Your task to perform on an android device: Add alienware area 51 to the cart on costco.com Image 0: 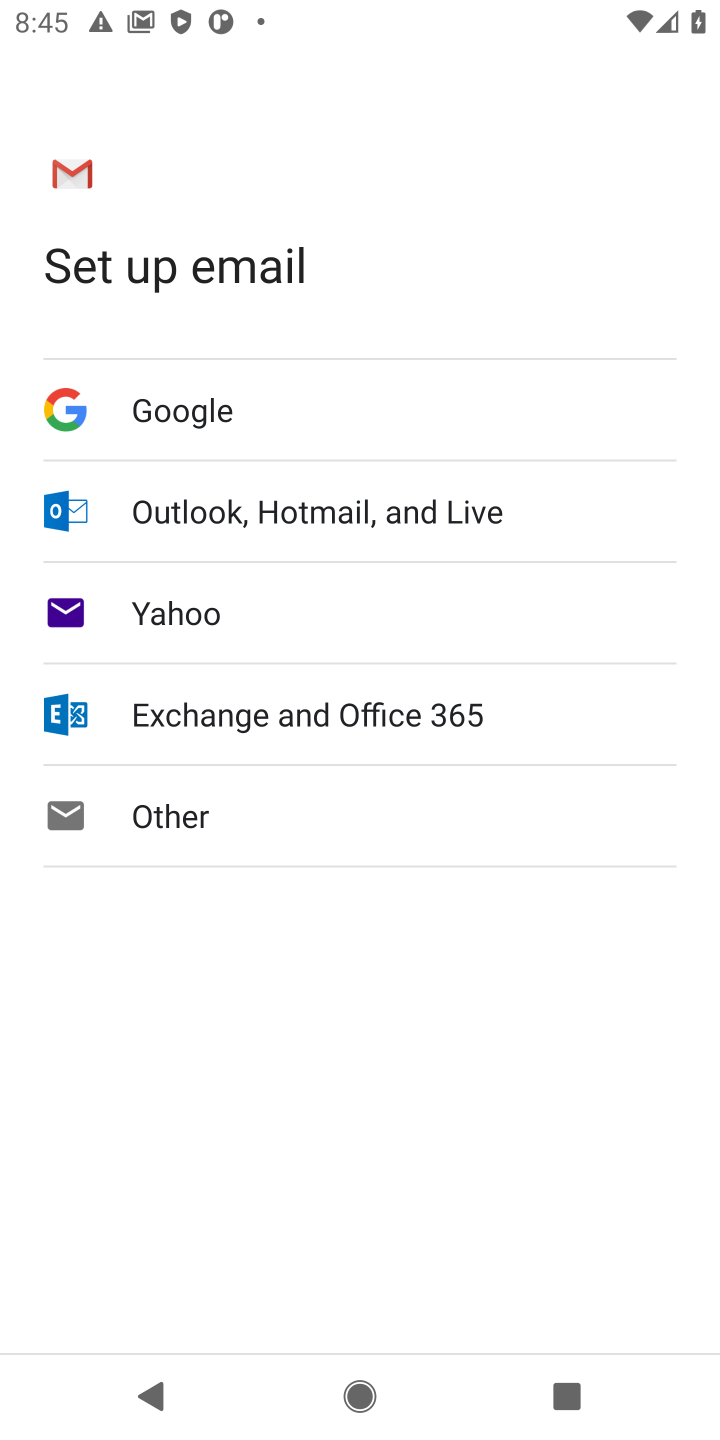
Step 0: press home button
Your task to perform on an android device: Add alienware area 51 to the cart on costco.com Image 1: 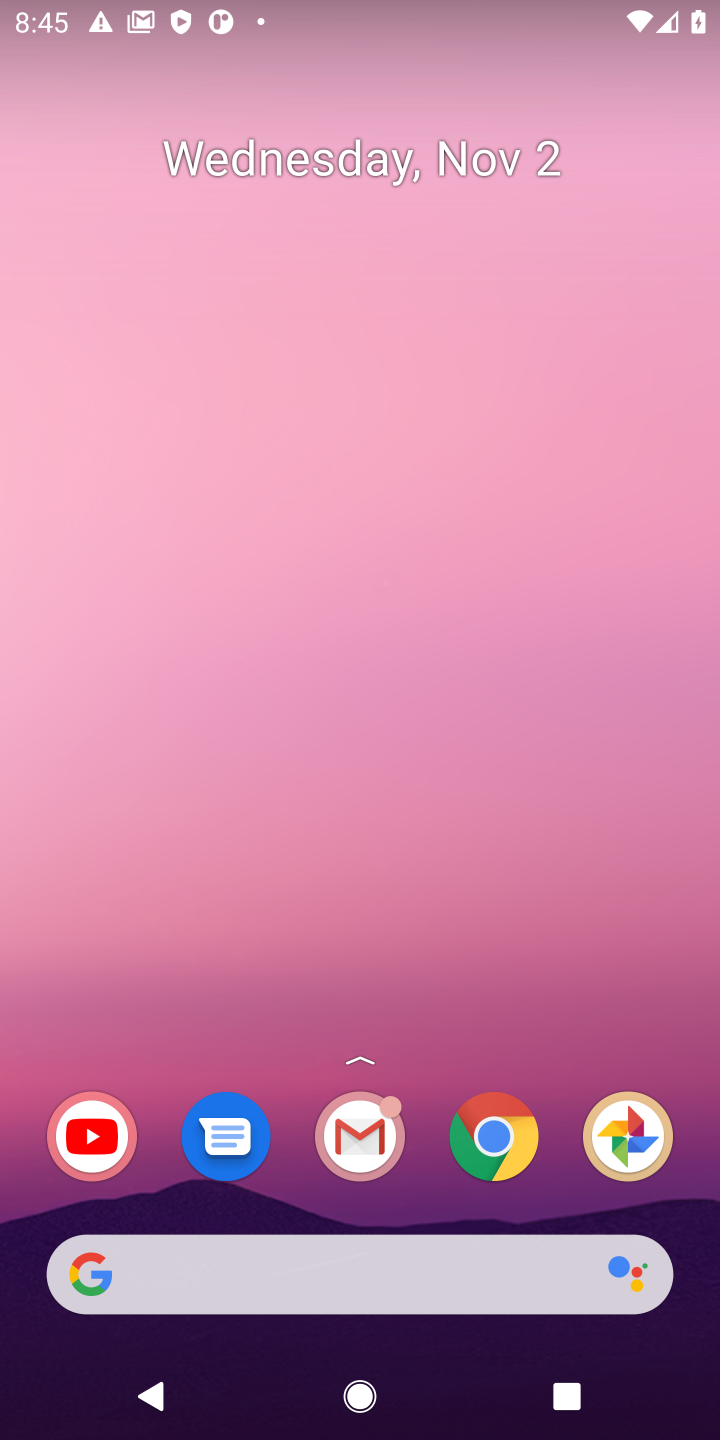
Step 1: drag from (436, 1186) to (443, 536)
Your task to perform on an android device: Add alienware area 51 to the cart on costco.com Image 2: 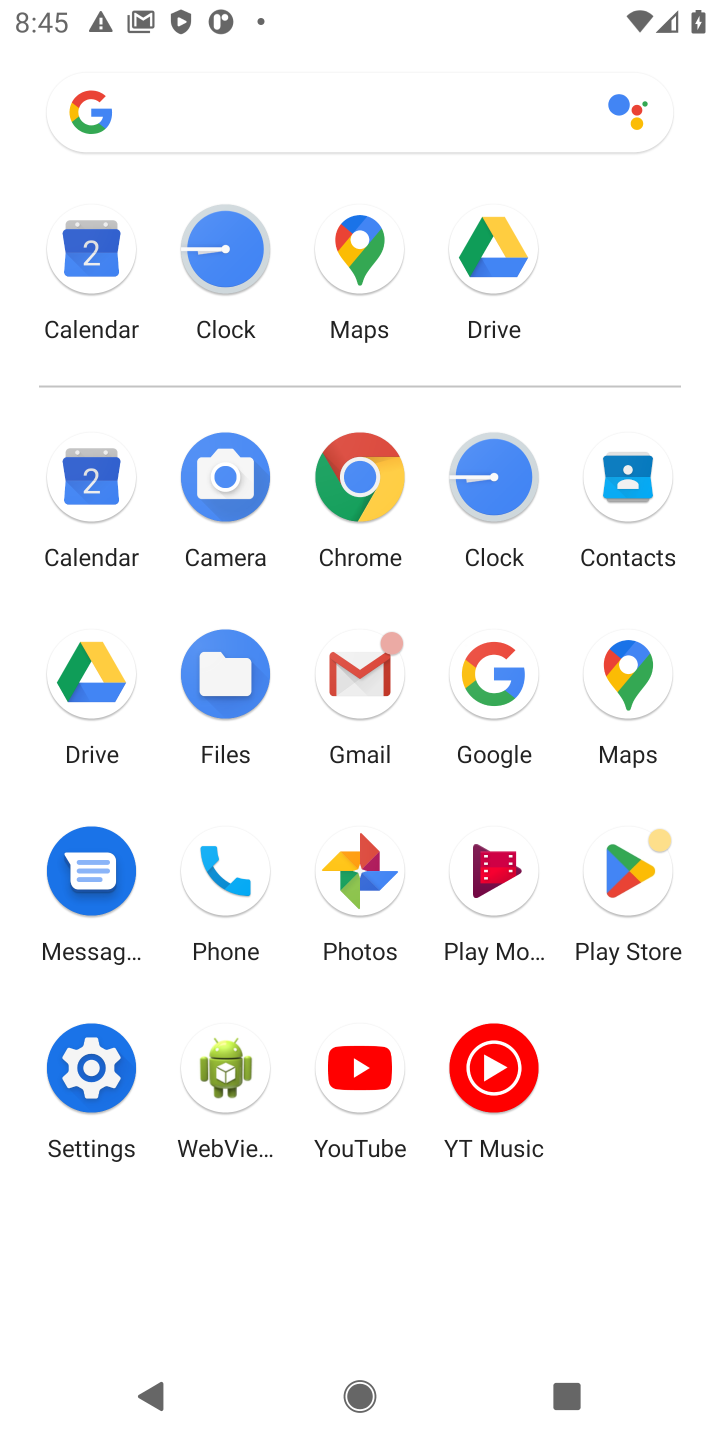
Step 2: click (496, 680)
Your task to perform on an android device: Add alienware area 51 to the cart on costco.com Image 3: 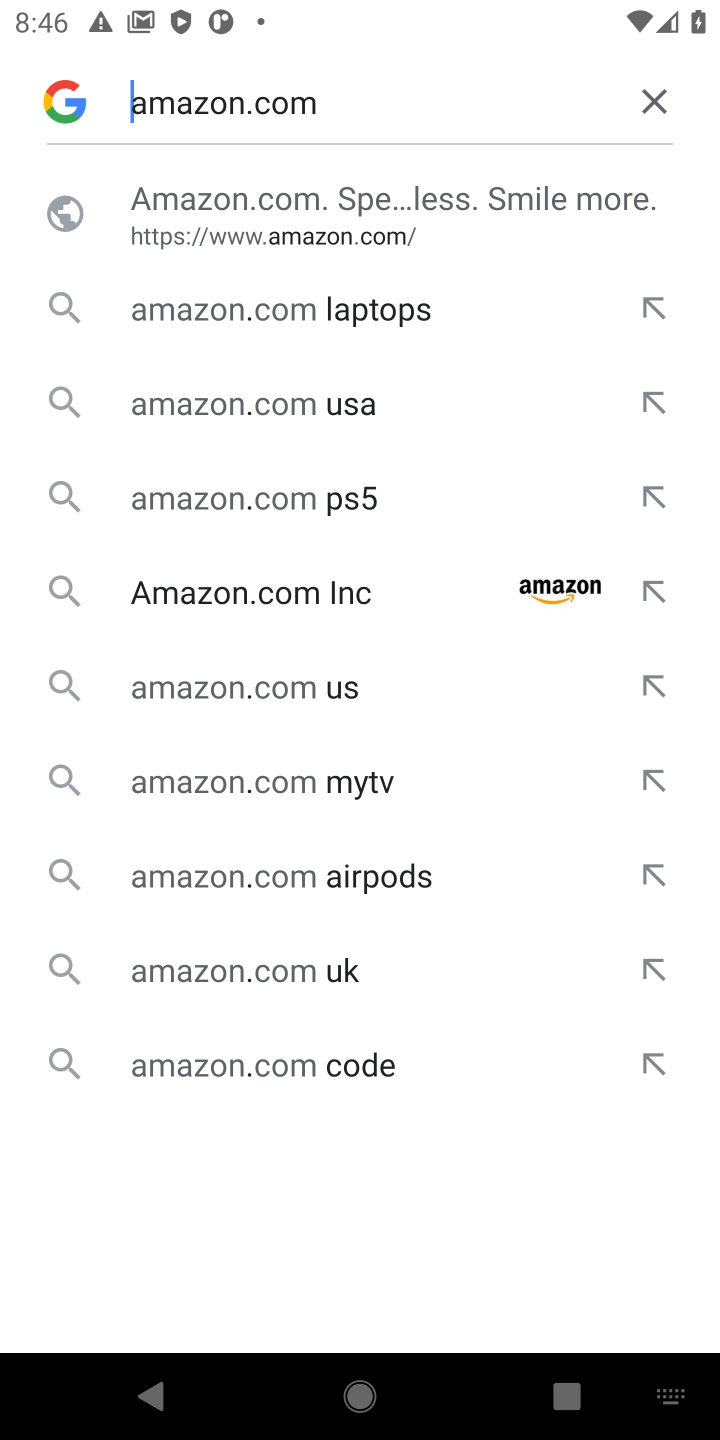
Step 3: click (653, 106)
Your task to perform on an android device: Add alienware area 51 to the cart on costco.com Image 4: 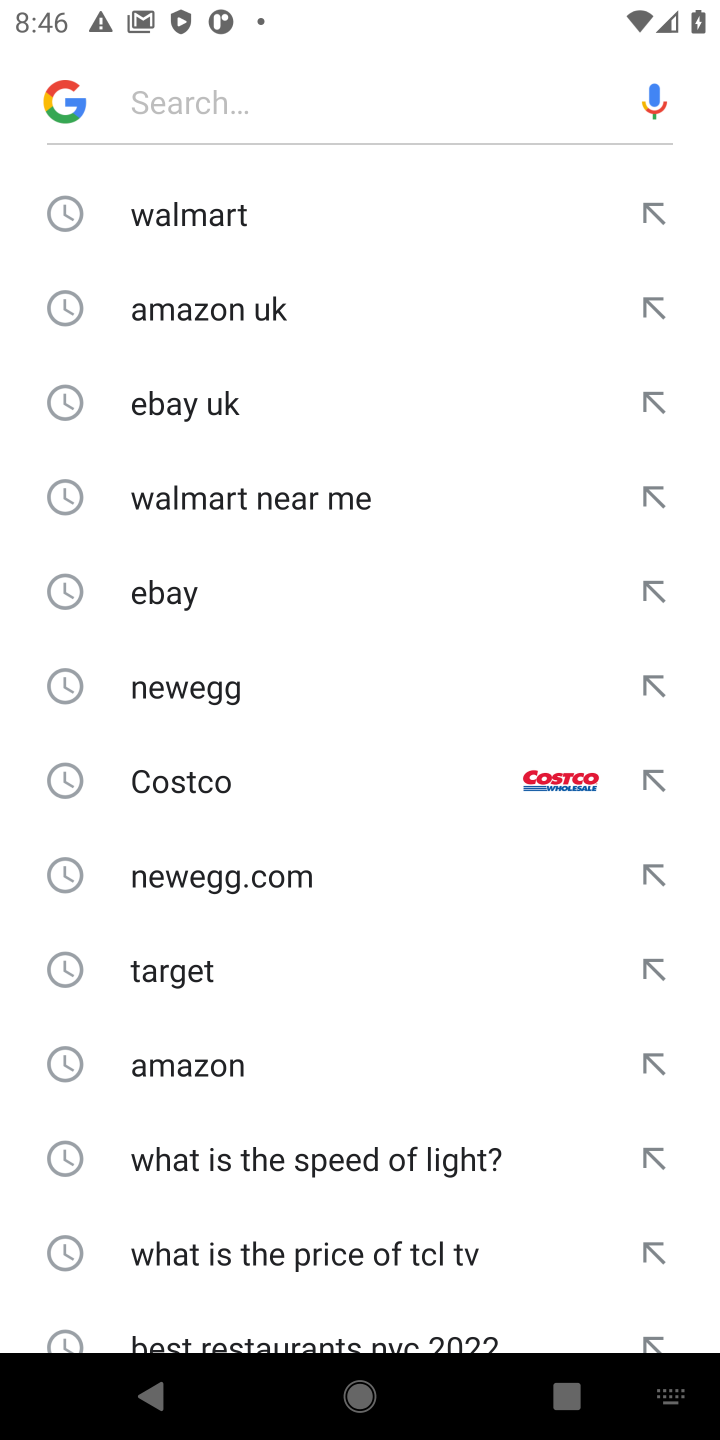
Step 4: click (259, 88)
Your task to perform on an android device: Add alienware area 51 to the cart on costco.com Image 5: 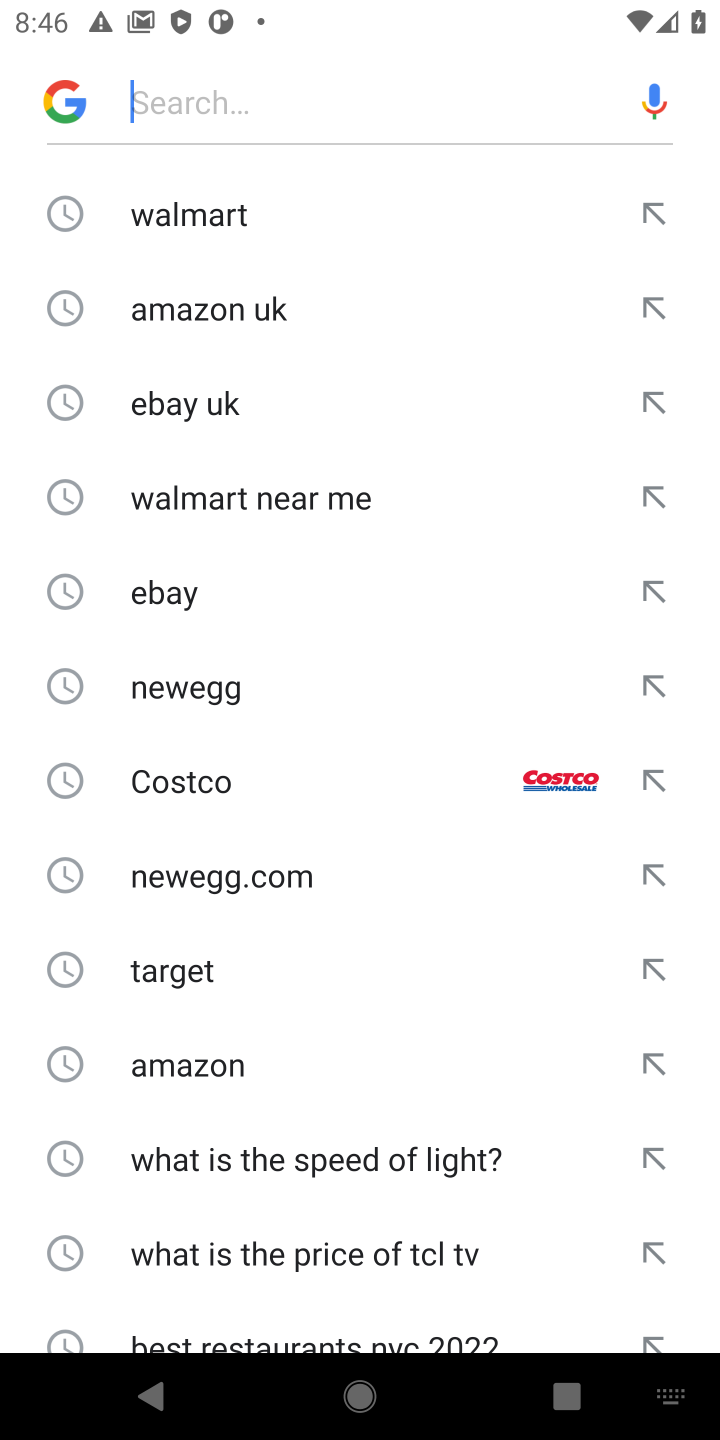
Step 5: type " costco.com "
Your task to perform on an android device: Add alienware area 51 to the cart on costco.com Image 6: 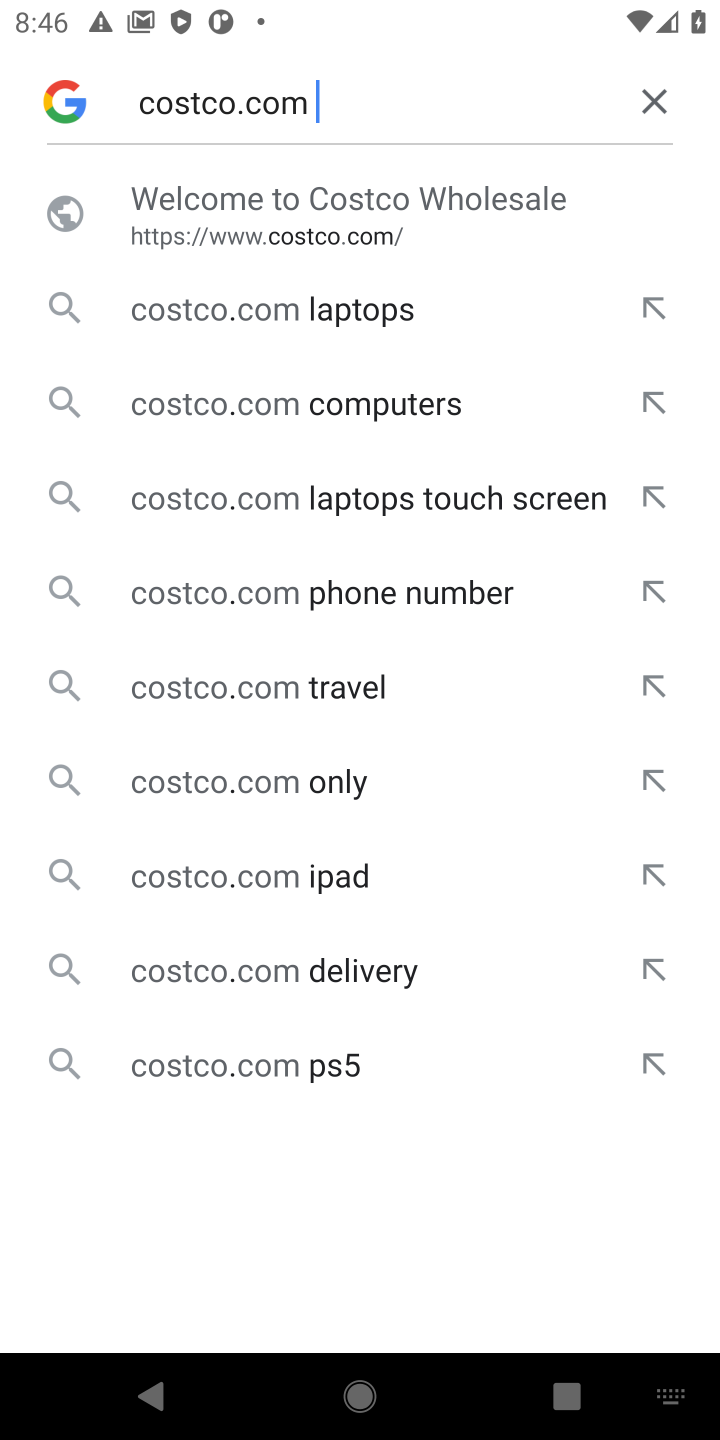
Step 6: click (394, 193)
Your task to perform on an android device: Add alienware area 51 to the cart on costco.com Image 7: 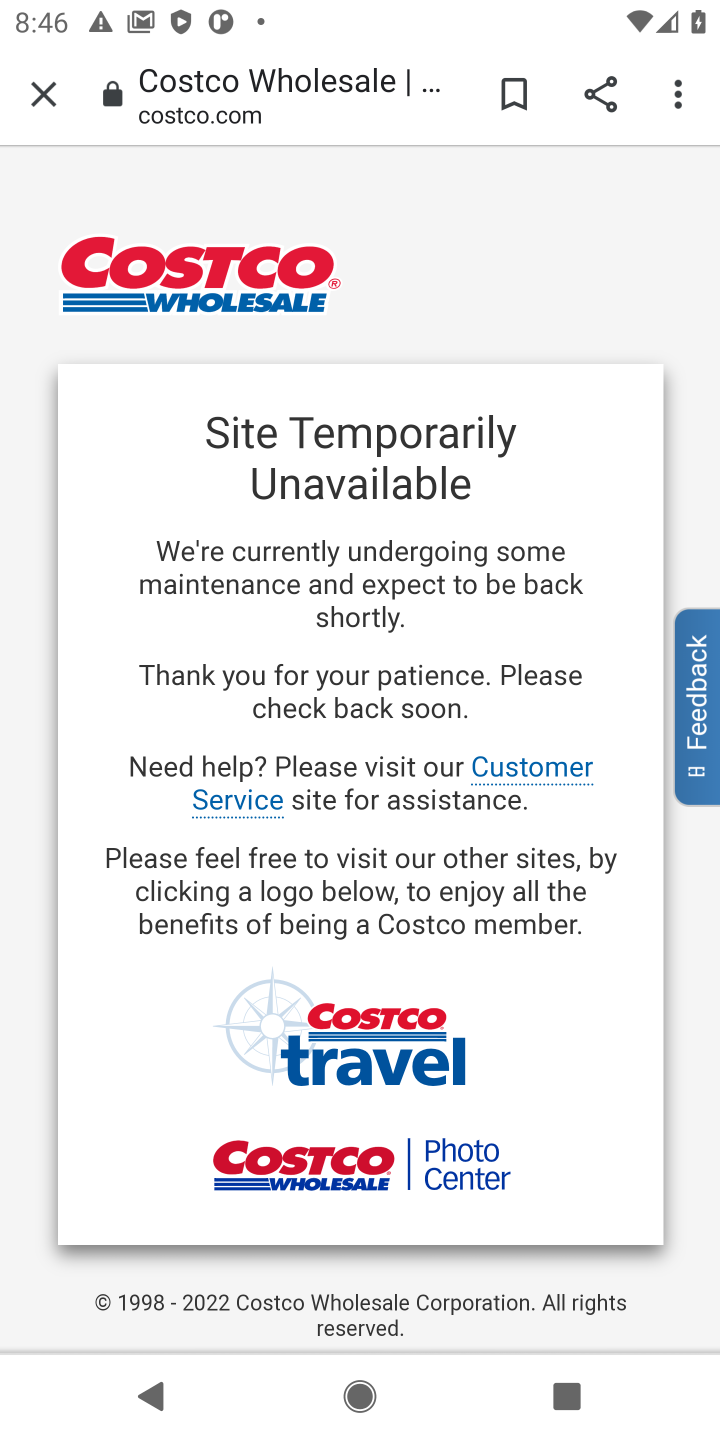
Step 7: drag from (492, 1035) to (474, 214)
Your task to perform on an android device: Add alienware area 51 to the cart on costco.com Image 8: 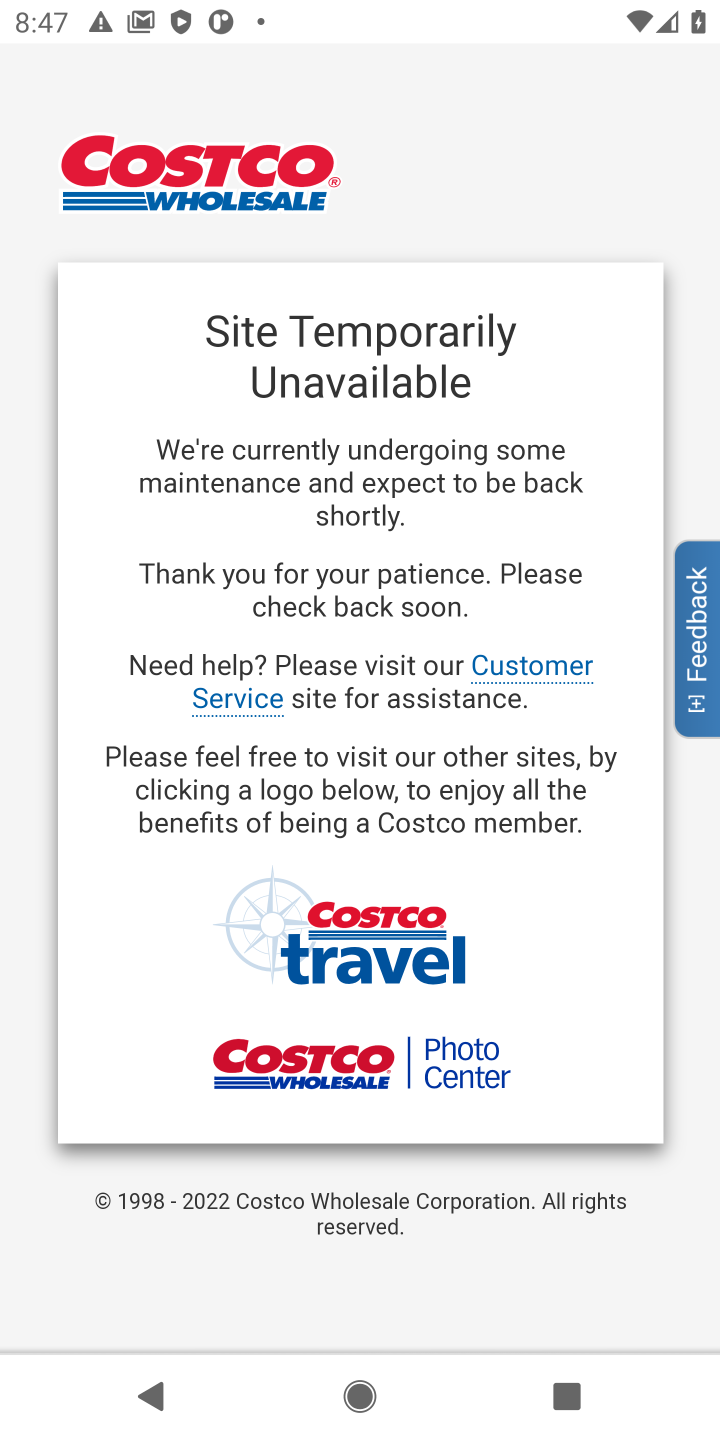
Step 8: press back button
Your task to perform on an android device: Add alienware area 51 to the cart on costco.com Image 9: 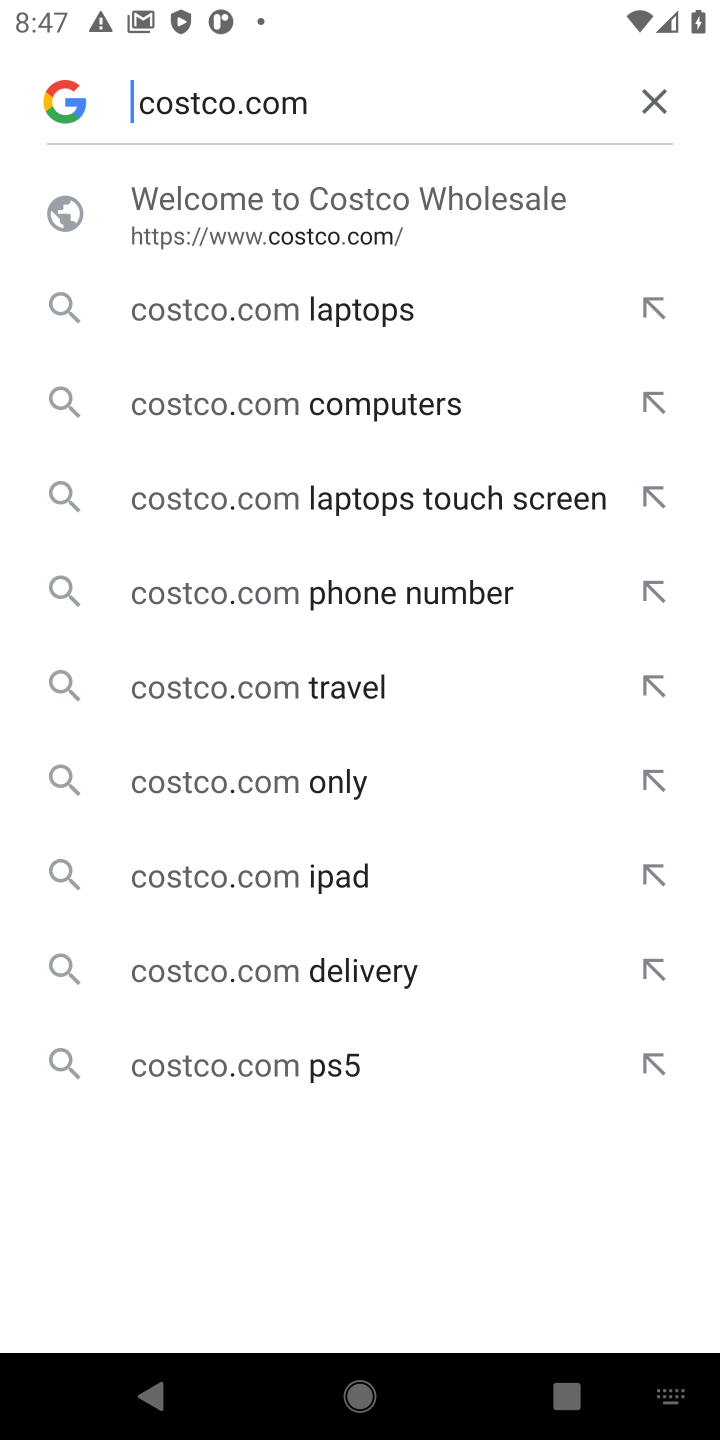
Step 9: click (265, 305)
Your task to perform on an android device: Add alienware area 51 to the cart on costco.com Image 10: 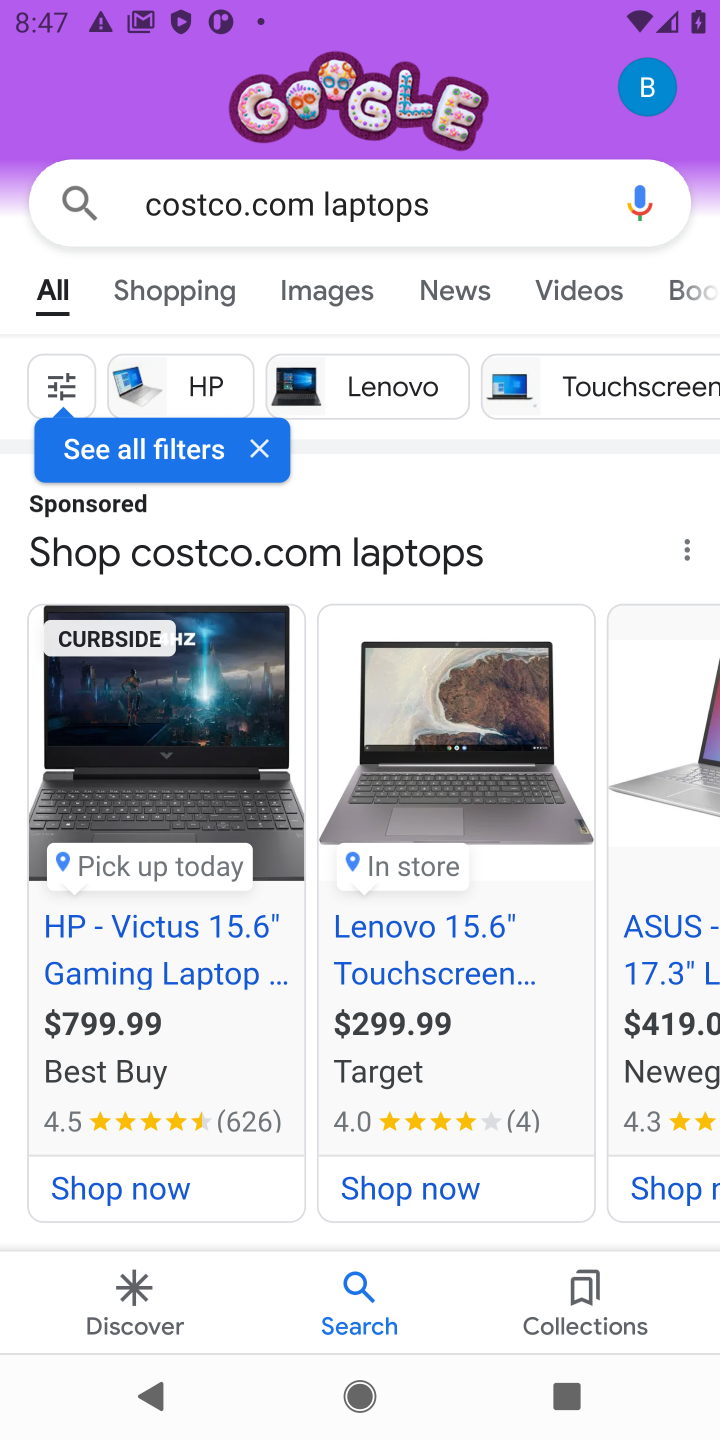
Step 10: drag from (308, 1118) to (365, 127)
Your task to perform on an android device: Add alienware area 51 to the cart on costco.com Image 11: 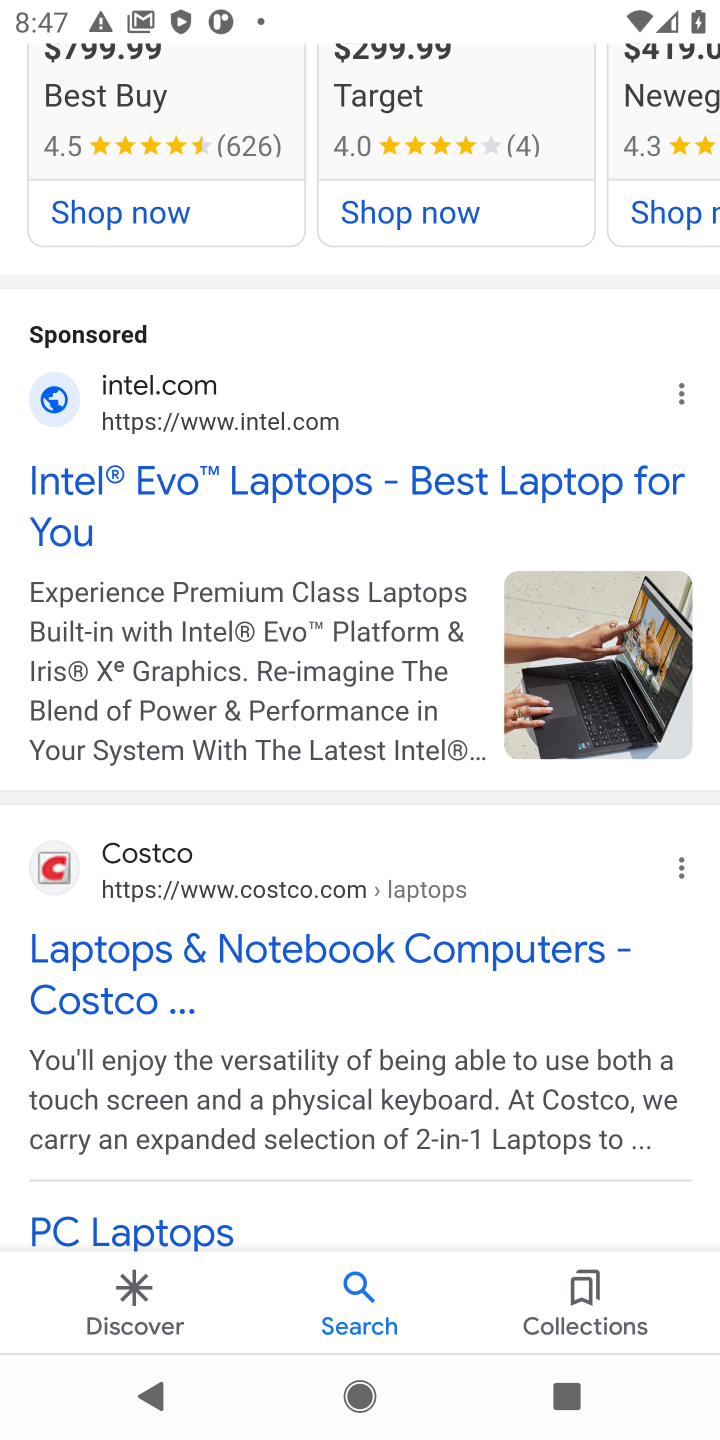
Step 11: click (51, 856)
Your task to perform on an android device: Add alienware area 51 to the cart on costco.com Image 12: 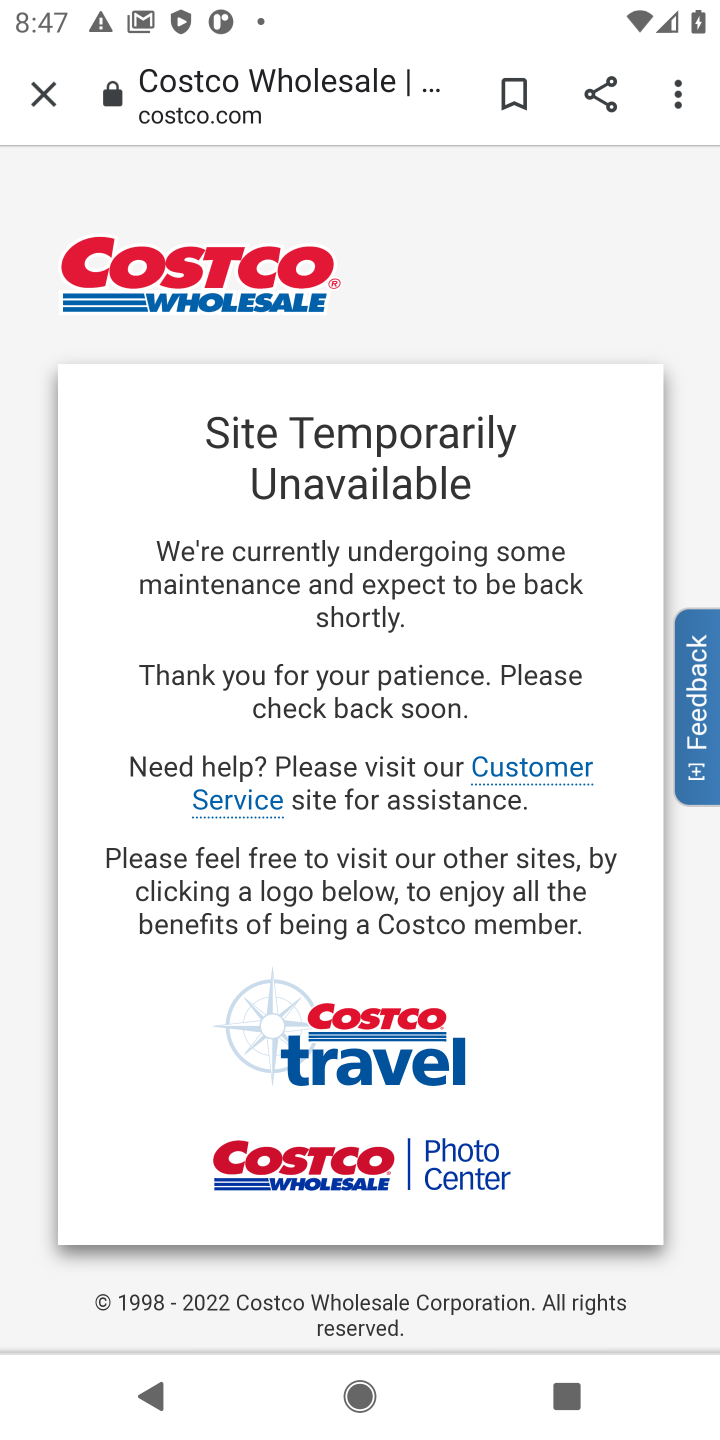
Step 12: drag from (380, 971) to (387, 298)
Your task to perform on an android device: Add alienware area 51 to the cart on costco.com Image 13: 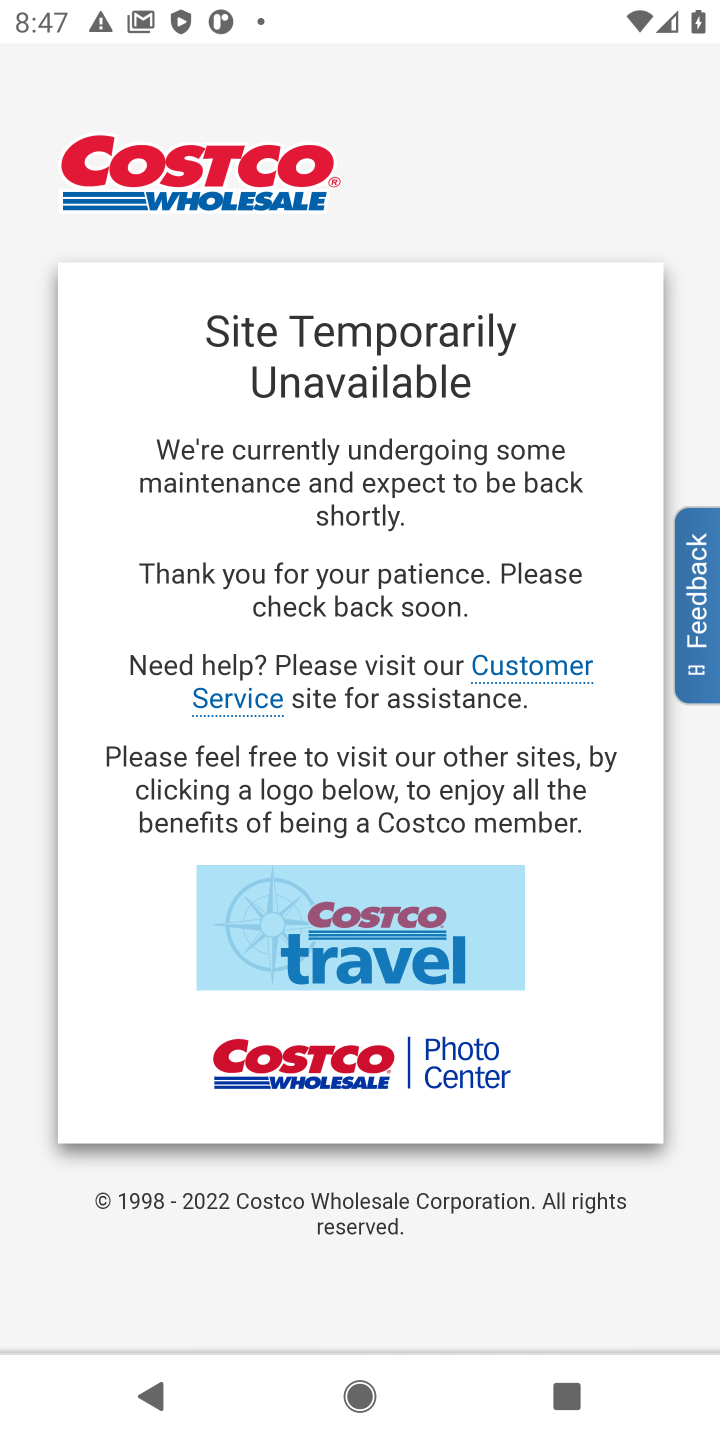
Step 13: drag from (437, 526) to (437, 153)
Your task to perform on an android device: Add alienware area 51 to the cart on costco.com Image 14: 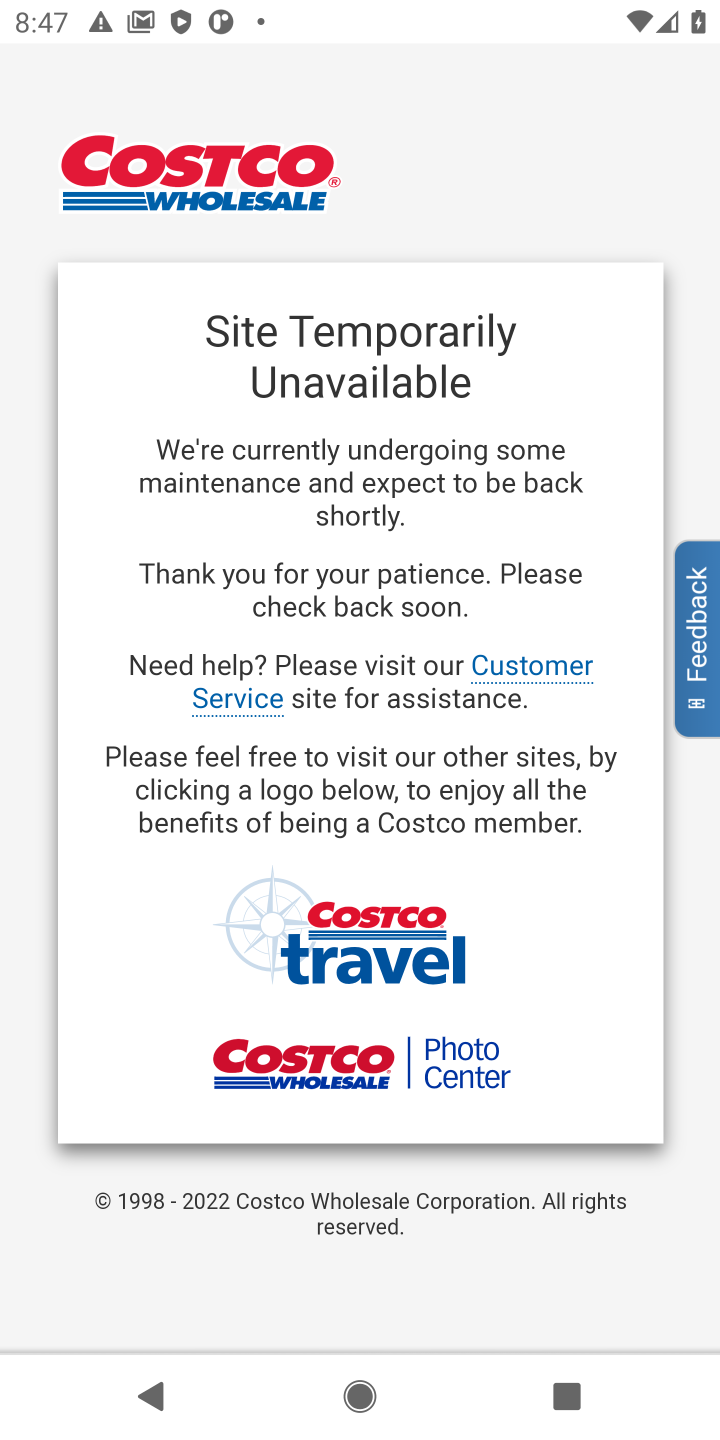
Step 14: press back button
Your task to perform on an android device: Add alienware area 51 to the cart on costco.com Image 15: 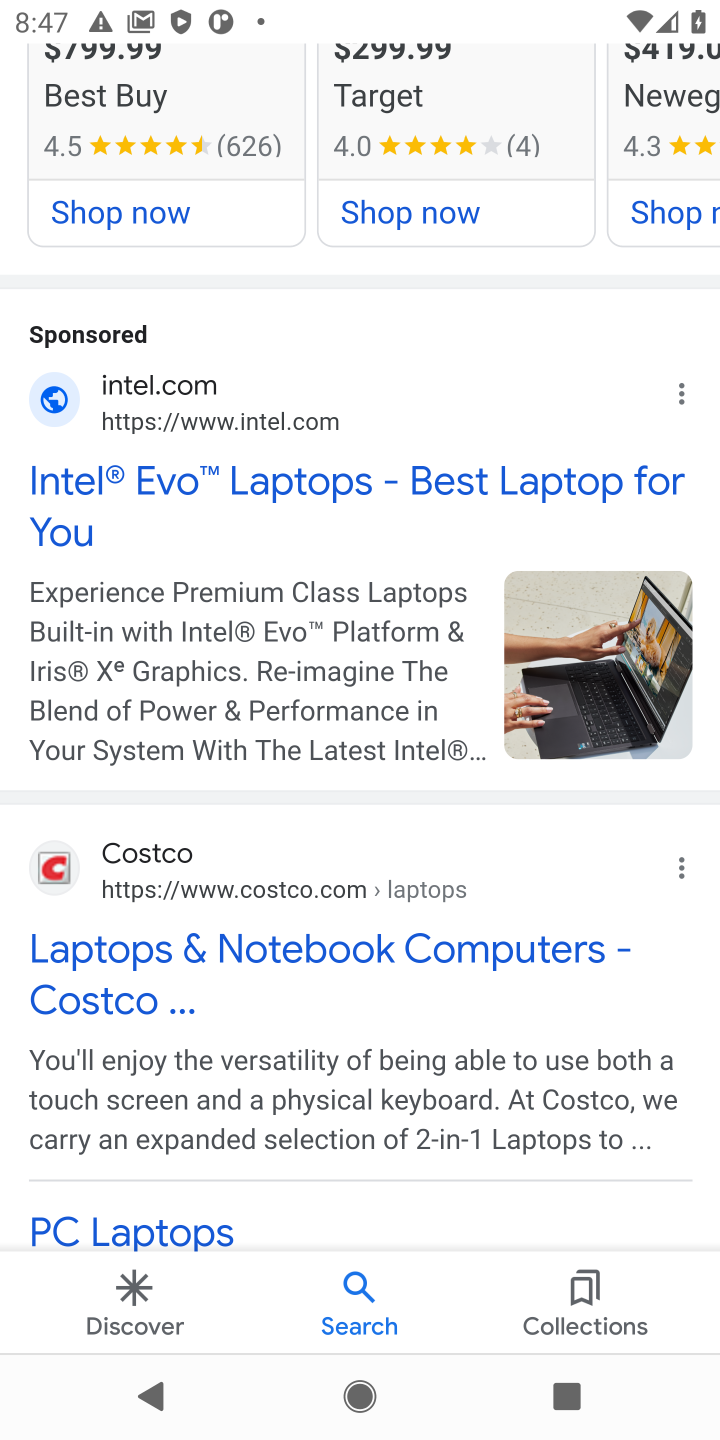
Step 15: drag from (299, 1166) to (356, 444)
Your task to perform on an android device: Add alienware area 51 to the cart on costco.com Image 16: 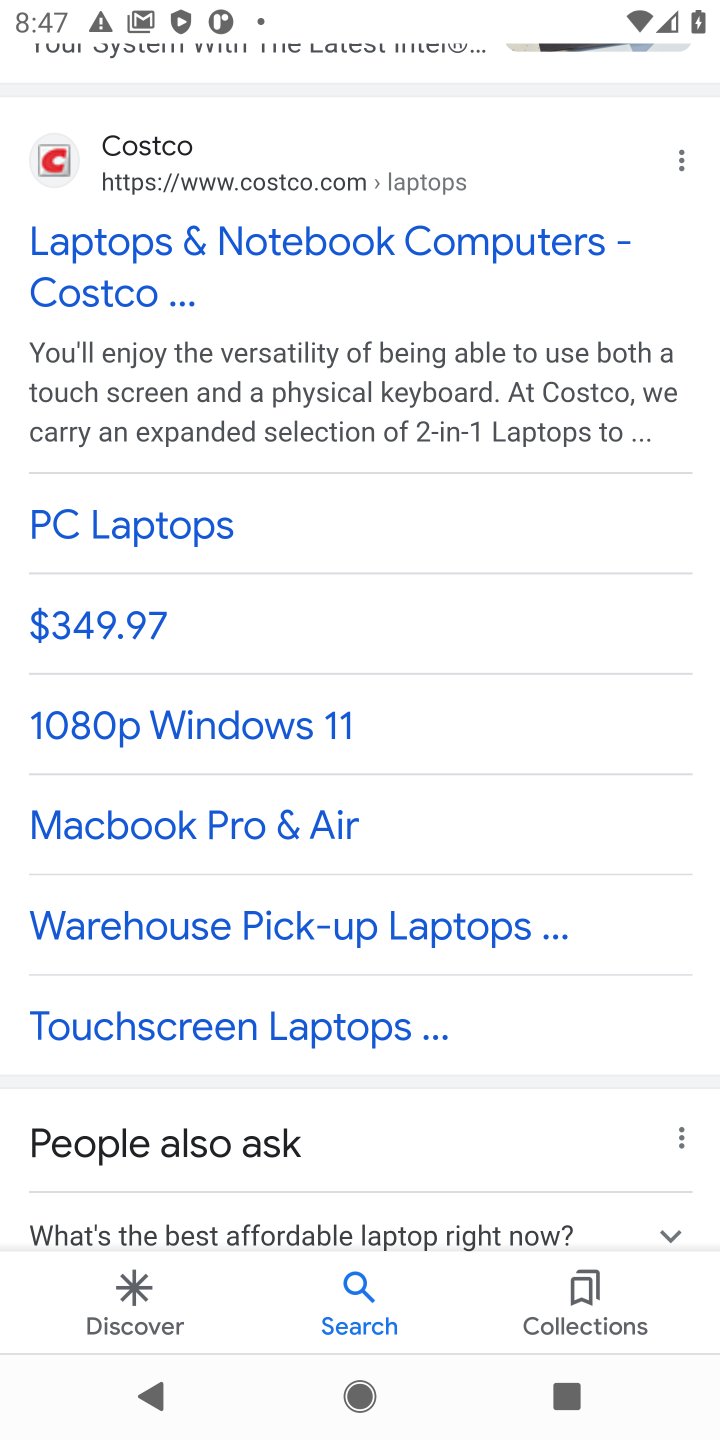
Step 16: drag from (286, 306) to (279, 1387)
Your task to perform on an android device: Add alienware area 51 to the cart on costco.com Image 17: 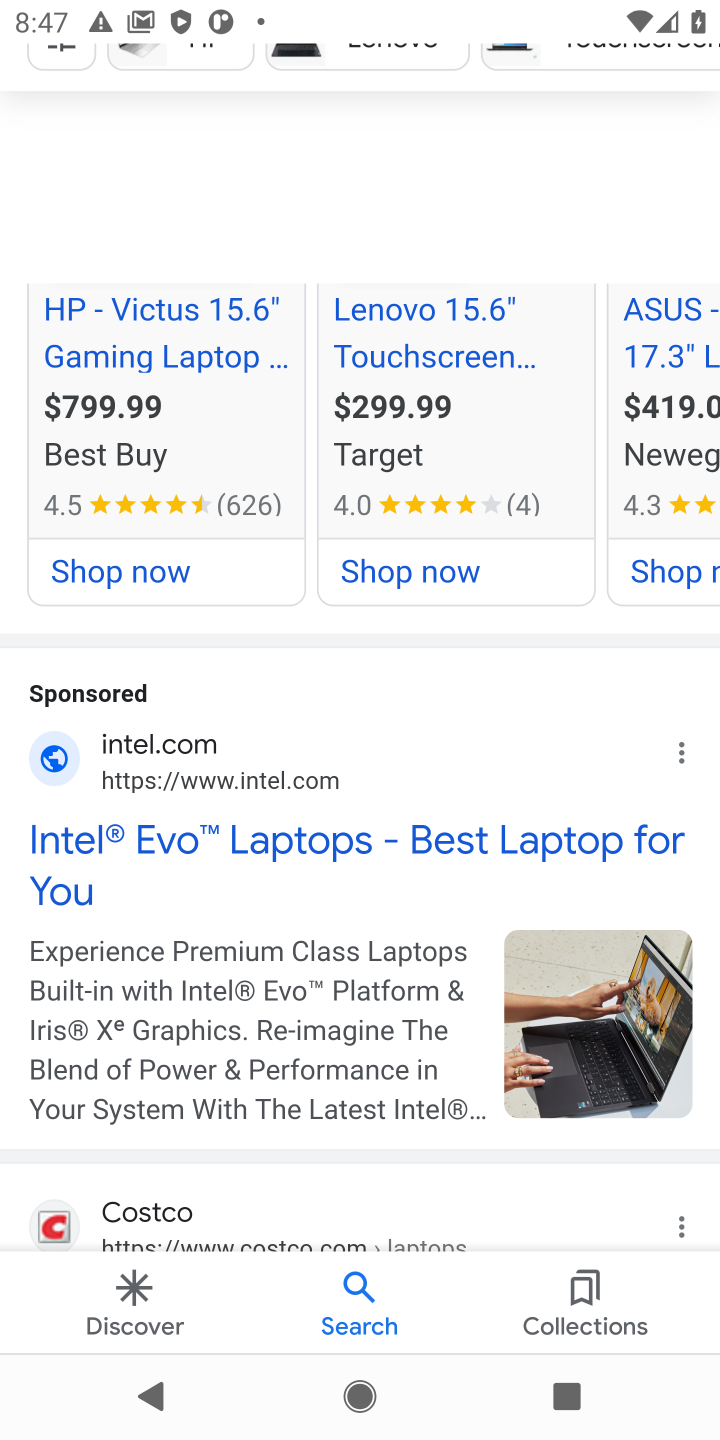
Step 17: drag from (303, 265) to (299, 1124)
Your task to perform on an android device: Add alienware area 51 to the cart on costco.com Image 18: 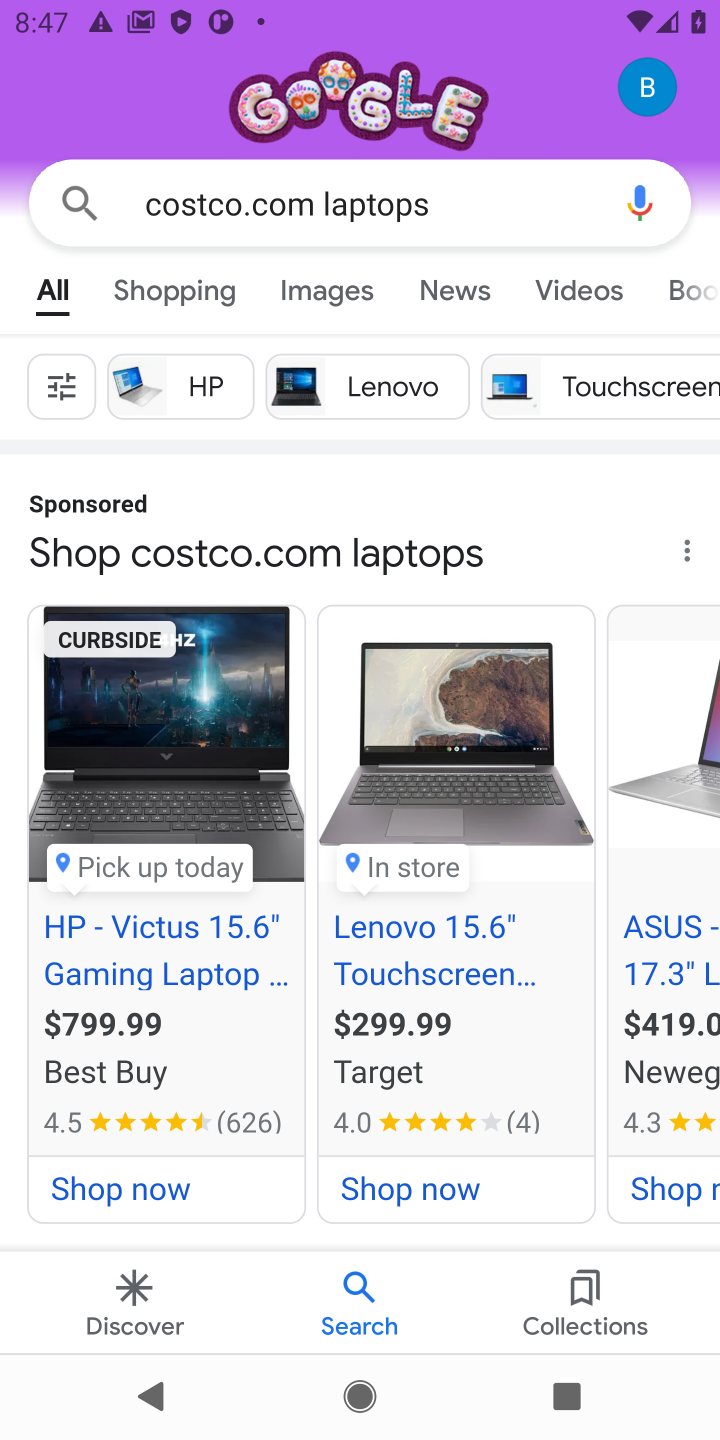
Step 18: click (457, 196)
Your task to perform on an android device: Add alienware area 51 to the cart on costco.com Image 19: 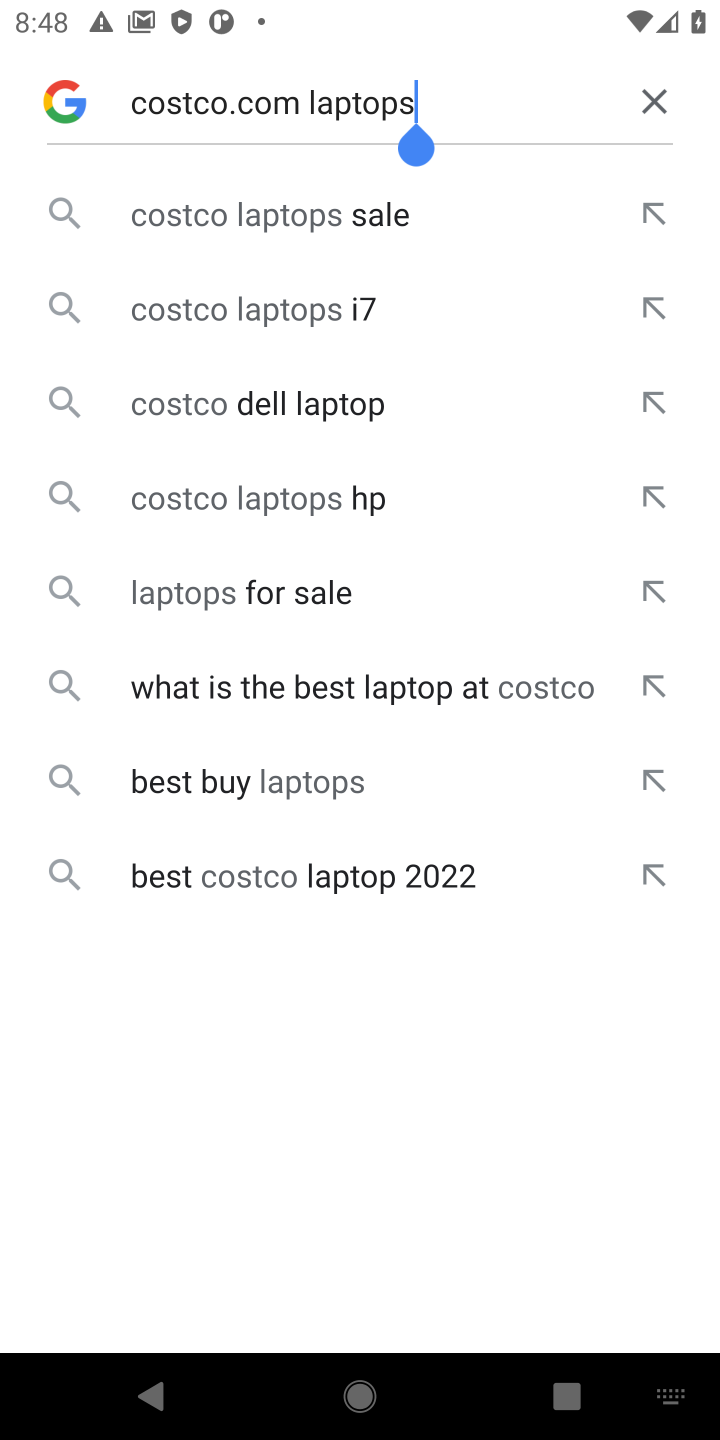
Step 19: click (651, 90)
Your task to perform on an android device: Add alienware area 51 to the cart on costco.com Image 20: 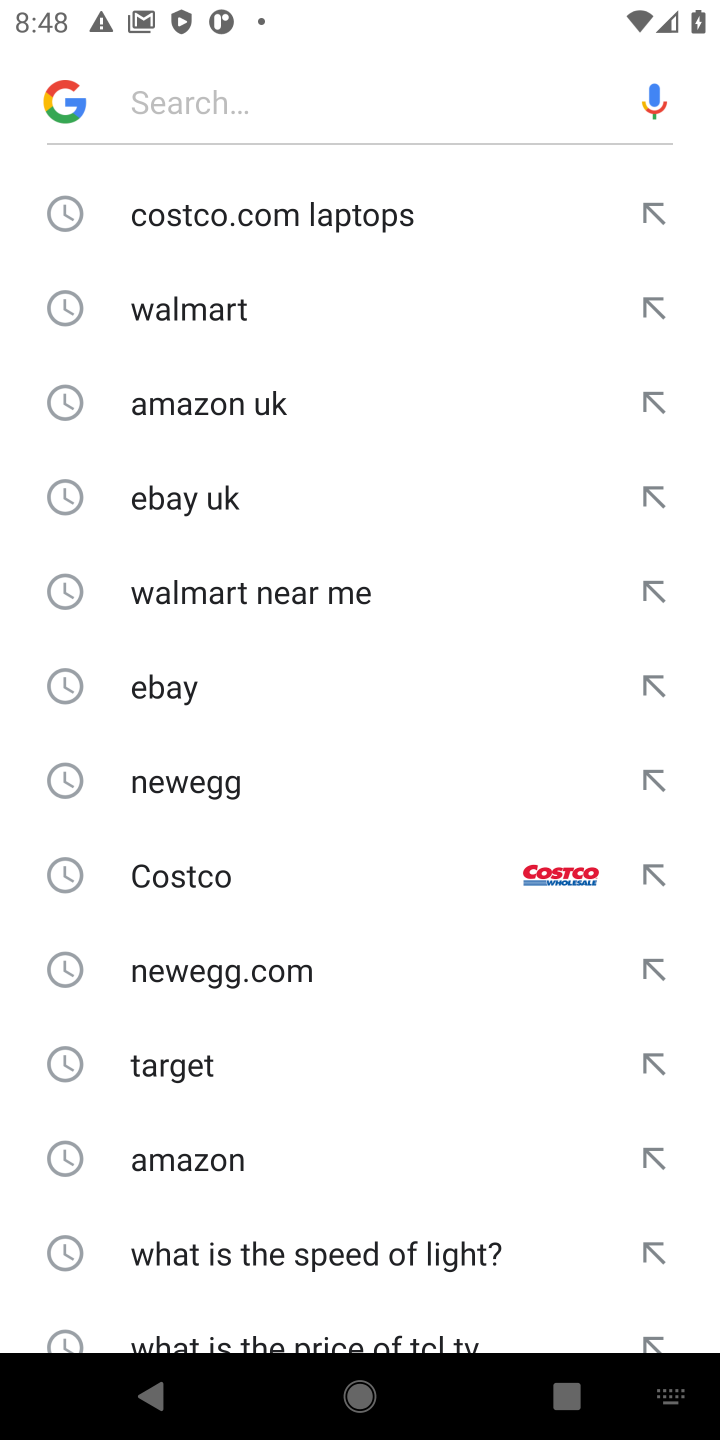
Step 20: click (315, 113)
Your task to perform on an android device: Add alienware area 51 to the cart on costco.com Image 21: 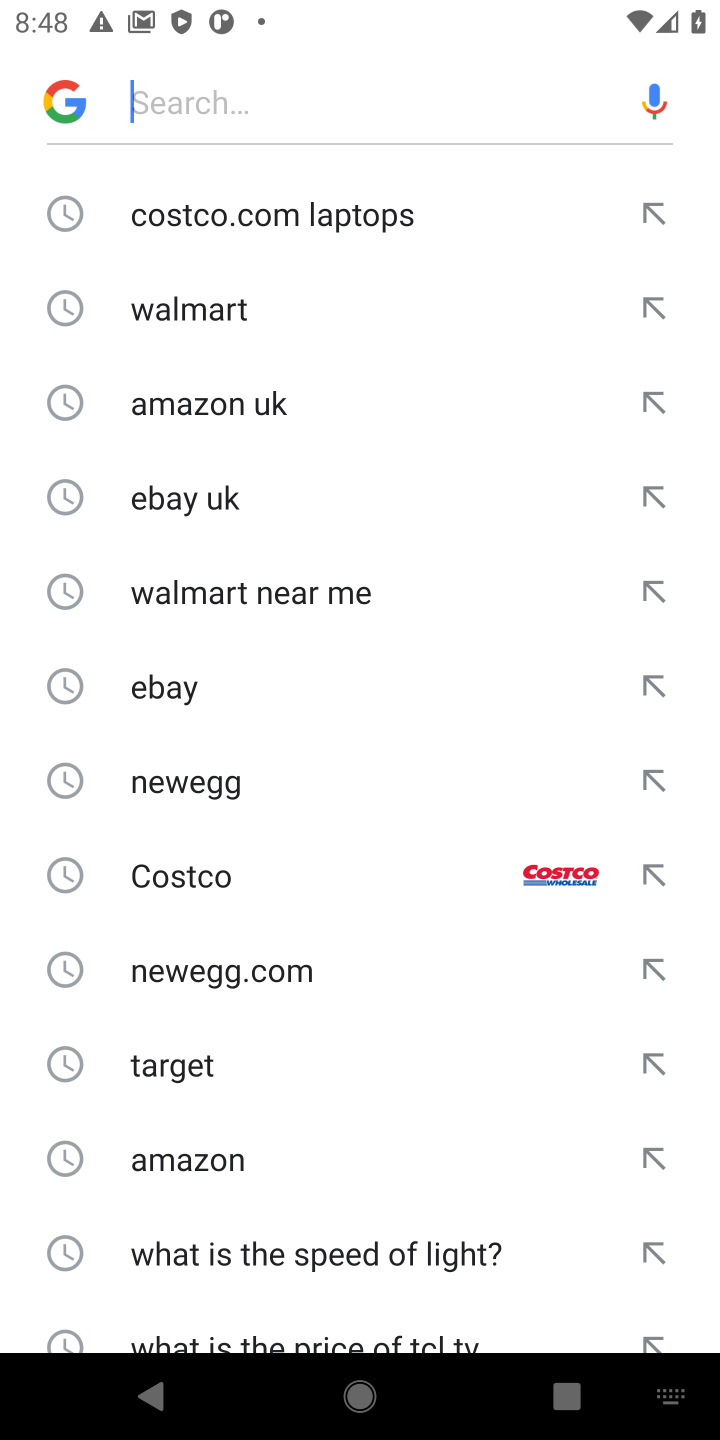
Step 21: click (287, 56)
Your task to perform on an android device: Add alienware area 51 to the cart on costco.com Image 22: 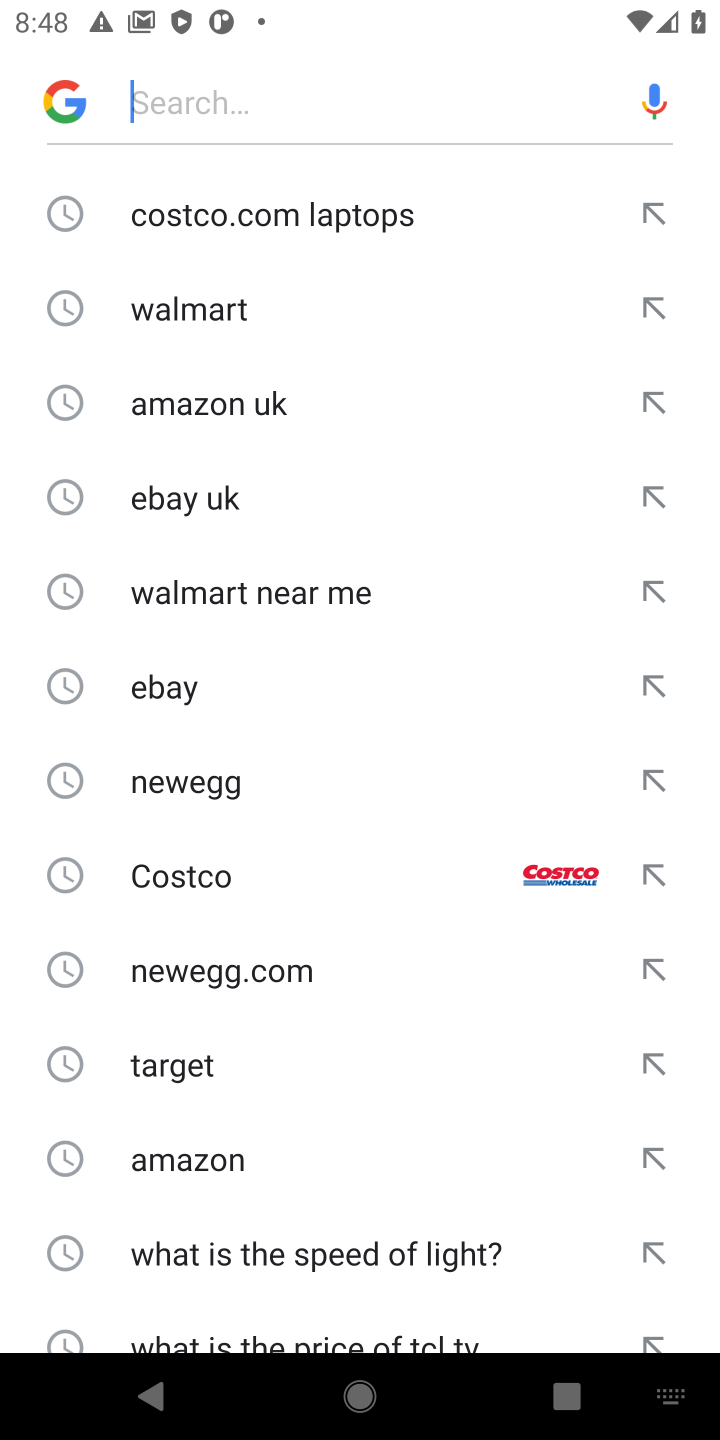
Step 22: click (347, 111)
Your task to perform on an android device: Add alienware area 51 to the cart on costco.com Image 23: 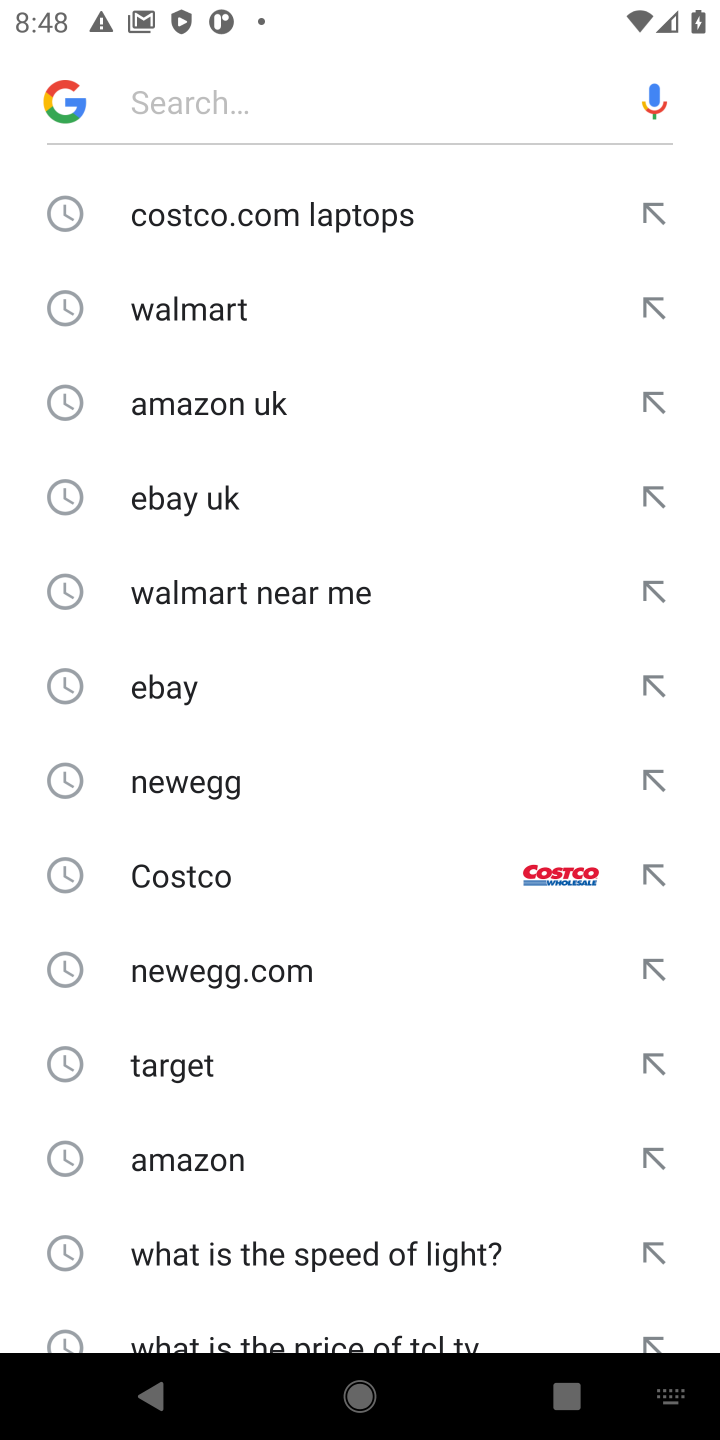
Step 23: type "costco.com "
Your task to perform on an android device: Add alienware area 51 to the cart on costco.com Image 24: 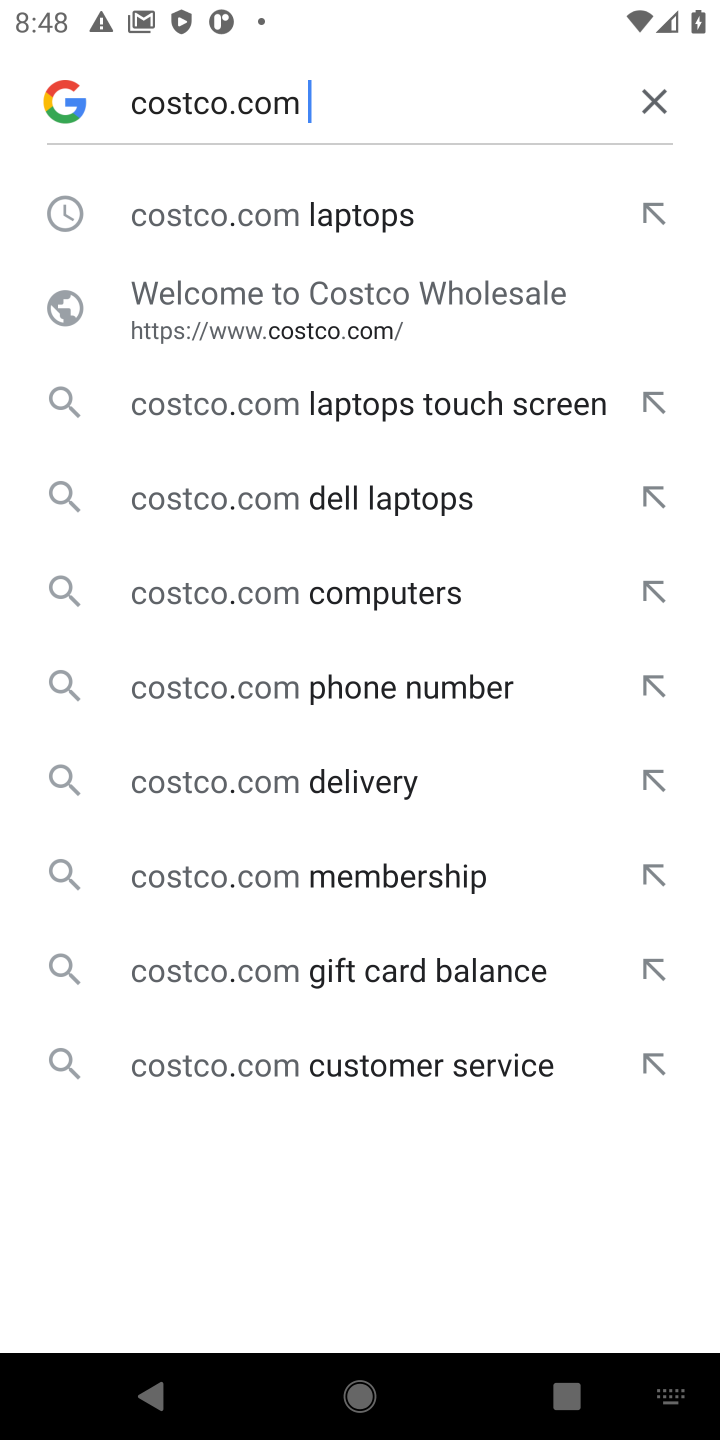
Step 24: click (285, 290)
Your task to perform on an android device: Add alienware area 51 to the cart on costco.com Image 25: 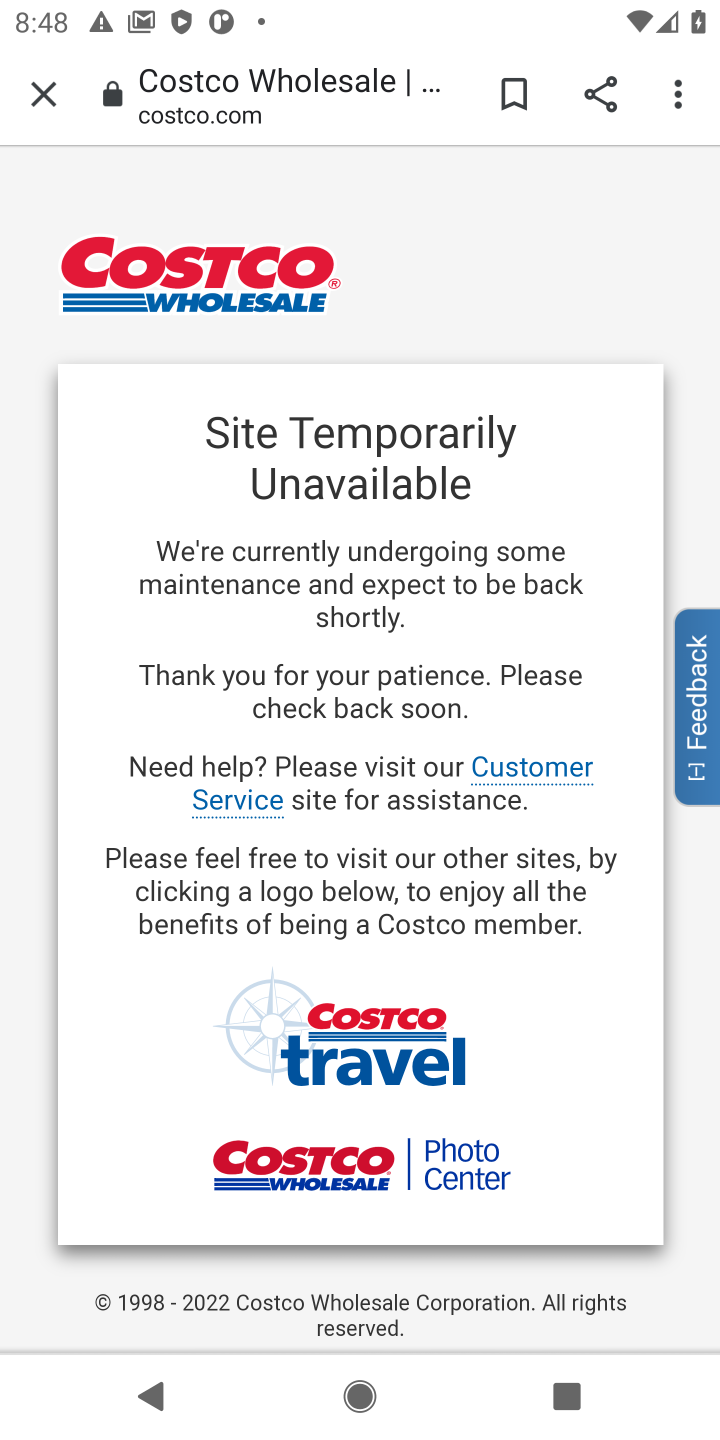
Step 25: task complete